Your task to perform on an android device: move a message to another label in the gmail app Image 0: 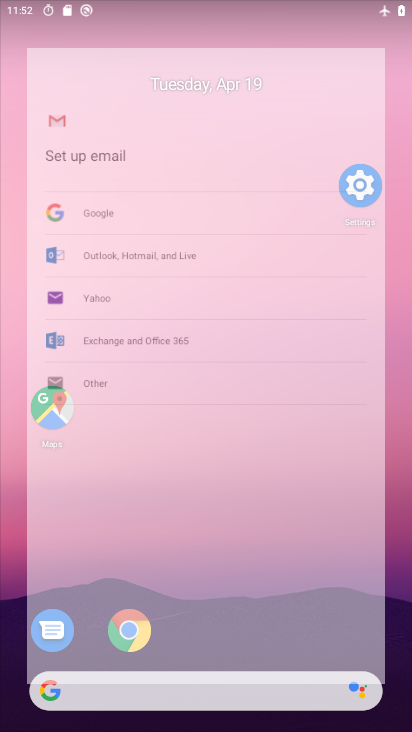
Step 0: drag from (208, 529) to (208, 456)
Your task to perform on an android device: move a message to another label in the gmail app Image 1: 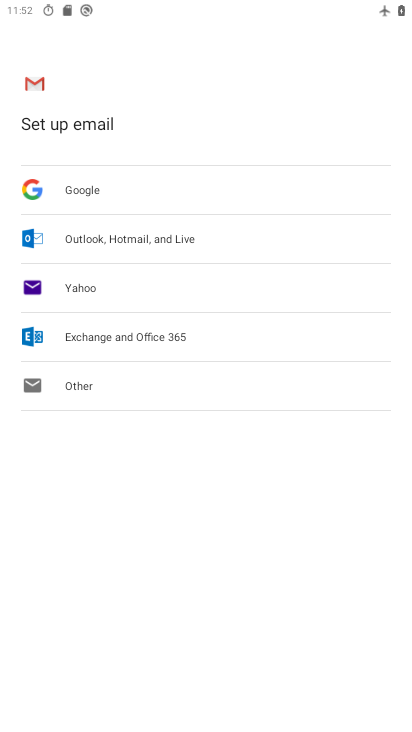
Step 1: press home button
Your task to perform on an android device: move a message to another label in the gmail app Image 2: 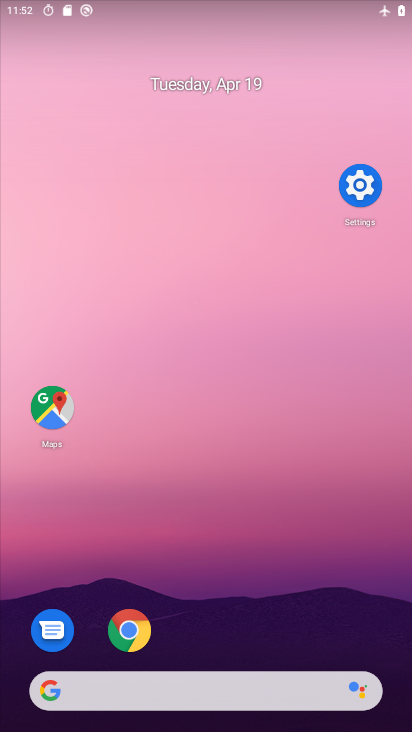
Step 2: drag from (254, 559) to (309, 2)
Your task to perform on an android device: move a message to another label in the gmail app Image 3: 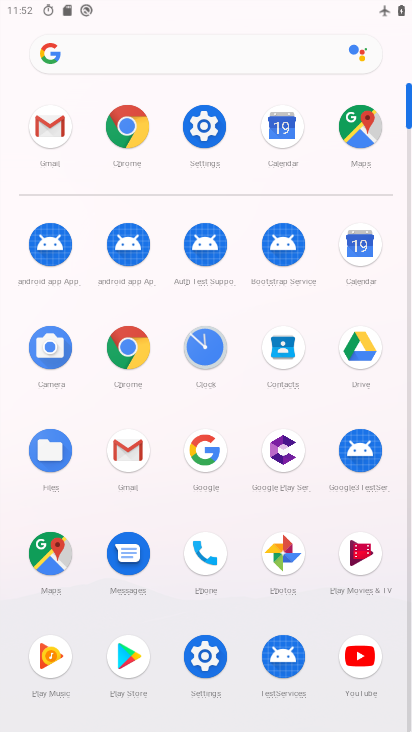
Step 3: click (156, 469)
Your task to perform on an android device: move a message to another label in the gmail app Image 4: 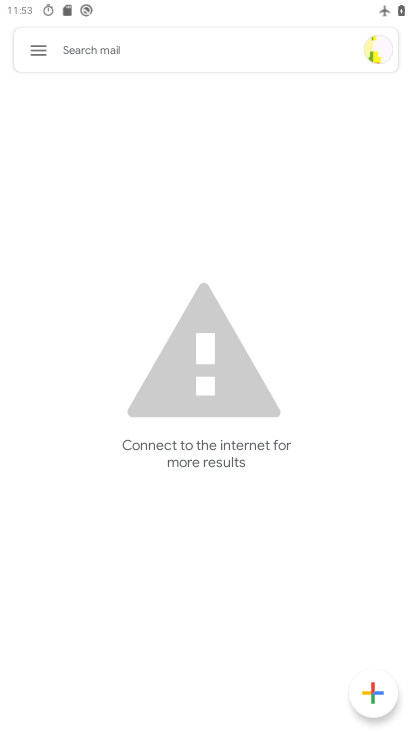
Step 4: click (38, 55)
Your task to perform on an android device: move a message to another label in the gmail app Image 5: 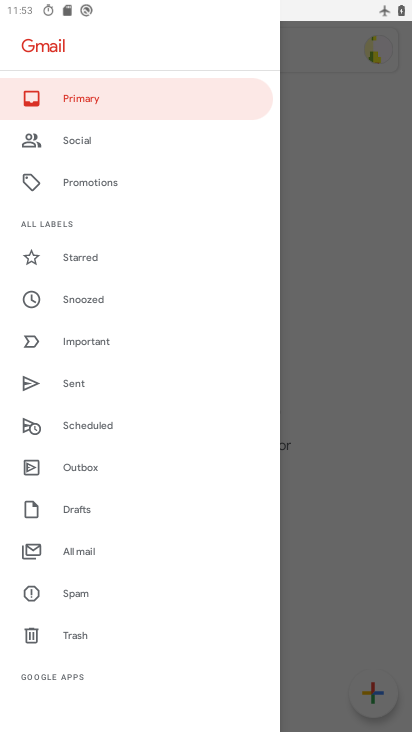
Step 5: click (117, 546)
Your task to perform on an android device: move a message to another label in the gmail app Image 6: 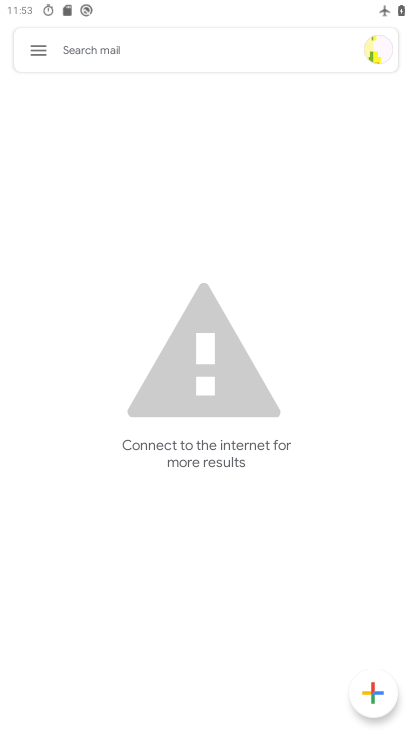
Step 6: task complete